Your task to perform on an android device: What's on the menu at McDonalds? Image 0: 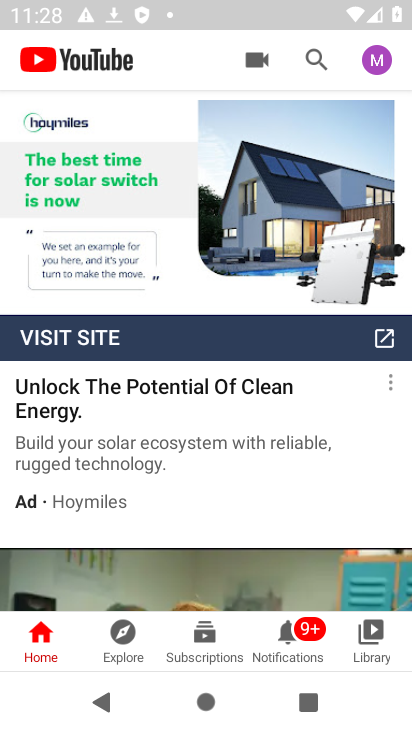
Step 0: press home button
Your task to perform on an android device: What's on the menu at McDonalds? Image 1: 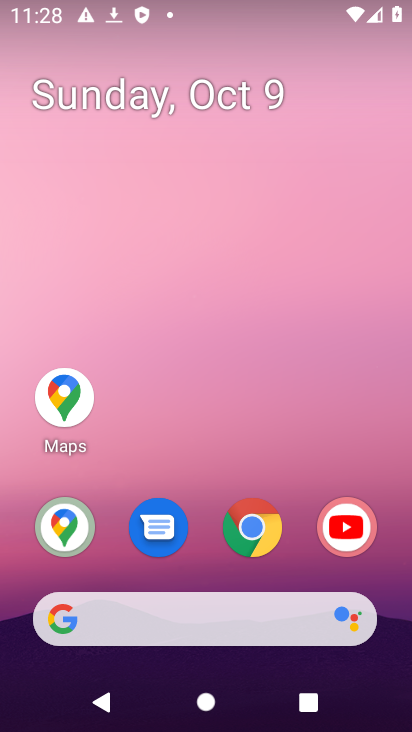
Step 1: click (261, 529)
Your task to perform on an android device: What's on the menu at McDonalds? Image 2: 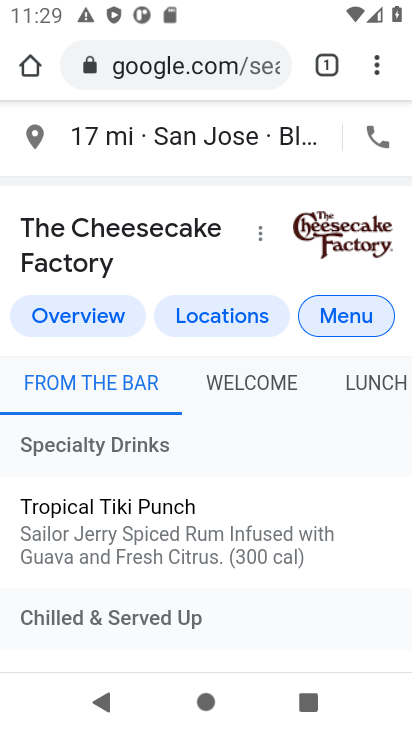
Step 2: click (194, 75)
Your task to perform on an android device: What's on the menu at McDonalds? Image 3: 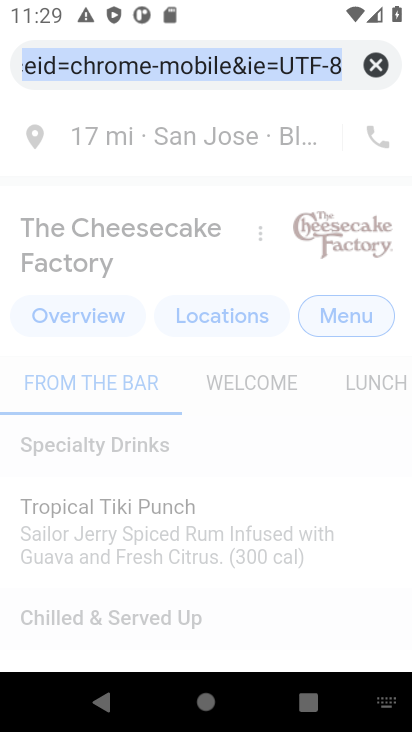
Step 3: type "menu at McDonalds"
Your task to perform on an android device: What's on the menu at McDonalds? Image 4: 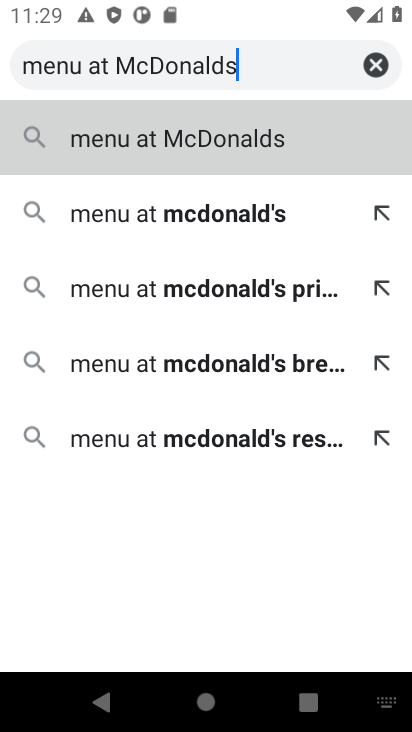
Step 4: click (228, 135)
Your task to perform on an android device: What's on the menu at McDonalds? Image 5: 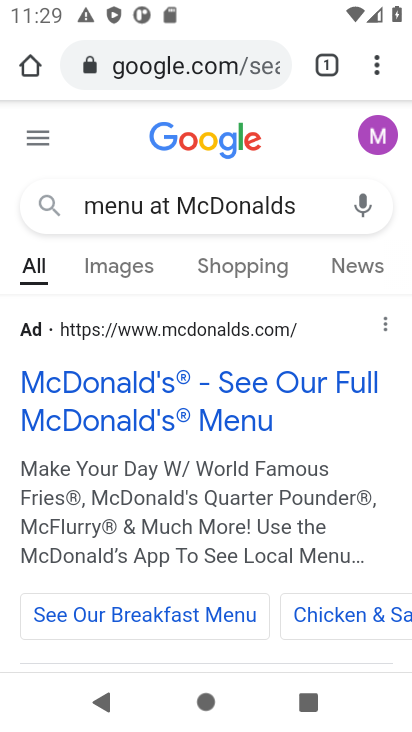
Step 5: click (152, 410)
Your task to perform on an android device: What's on the menu at McDonalds? Image 6: 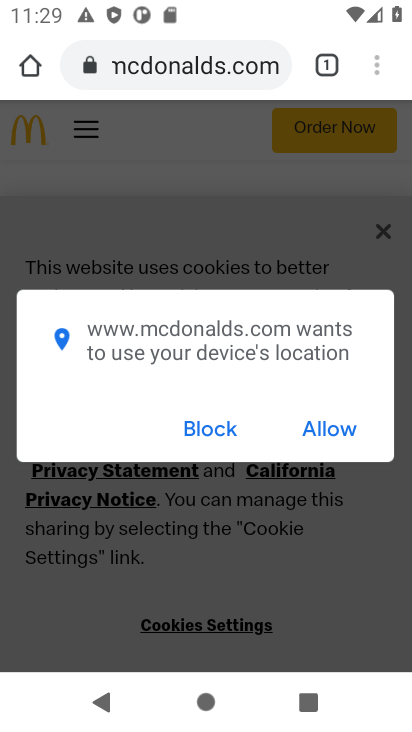
Step 6: click (323, 422)
Your task to perform on an android device: What's on the menu at McDonalds? Image 7: 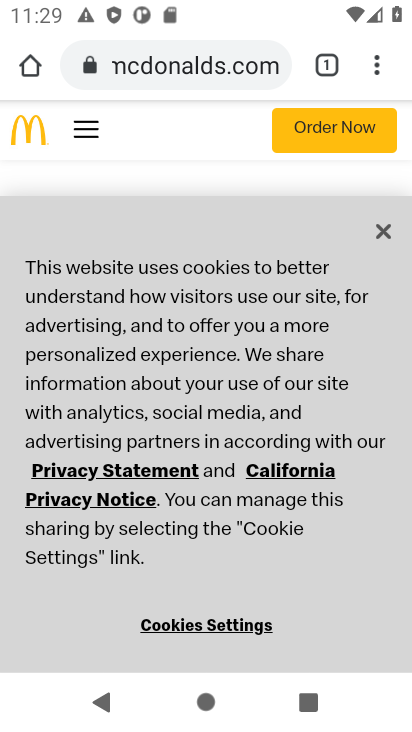
Step 7: drag from (212, 568) to (237, 381)
Your task to perform on an android device: What's on the menu at McDonalds? Image 8: 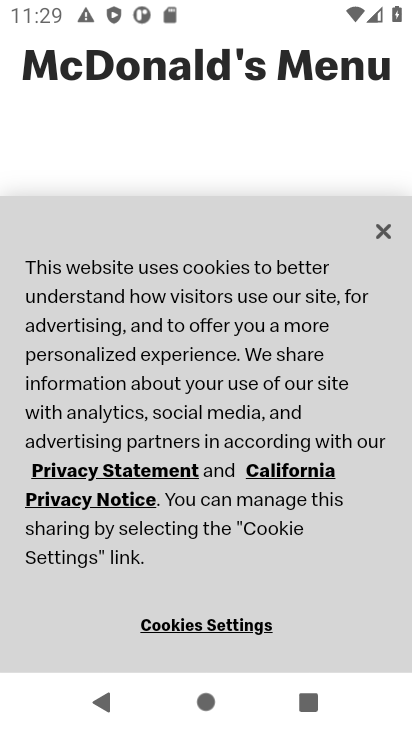
Step 8: click (395, 225)
Your task to perform on an android device: What's on the menu at McDonalds? Image 9: 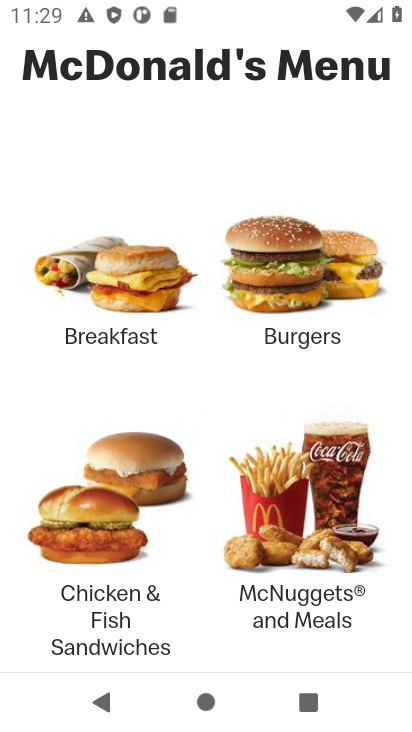
Step 9: task complete